Your task to perform on an android device: Go to wifi settings Image 0: 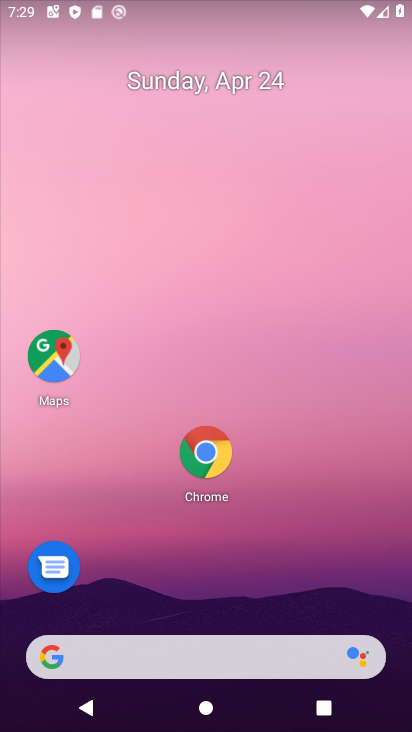
Step 0: drag from (278, 548) to (253, 34)
Your task to perform on an android device: Go to wifi settings Image 1: 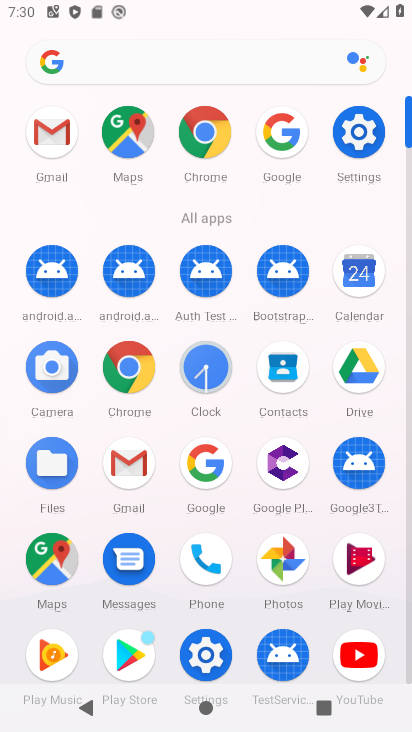
Step 1: click (364, 138)
Your task to perform on an android device: Go to wifi settings Image 2: 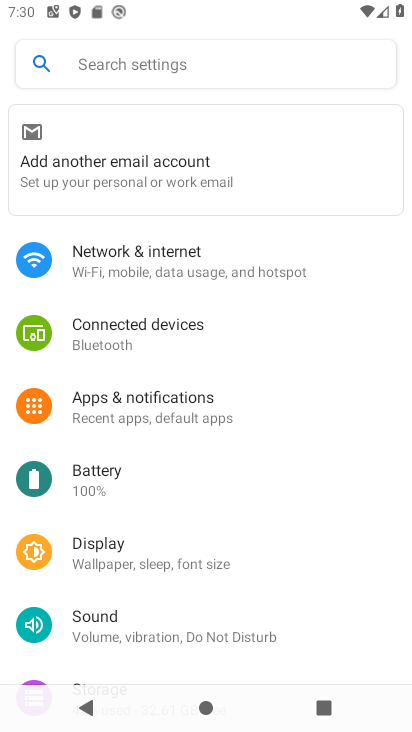
Step 2: click (125, 248)
Your task to perform on an android device: Go to wifi settings Image 3: 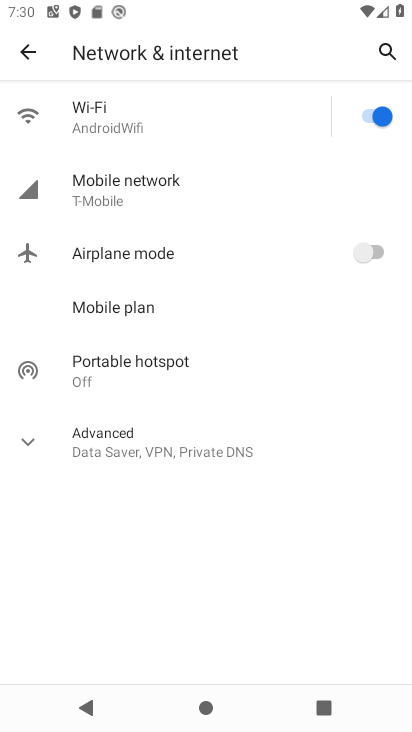
Step 3: click (114, 139)
Your task to perform on an android device: Go to wifi settings Image 4: 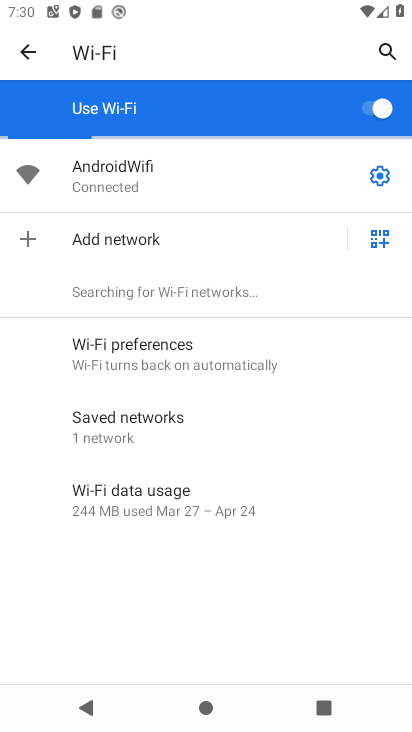
Step 4: task complete